Your task to perform on an android device: turn pop-ups off in chrome Image 0: 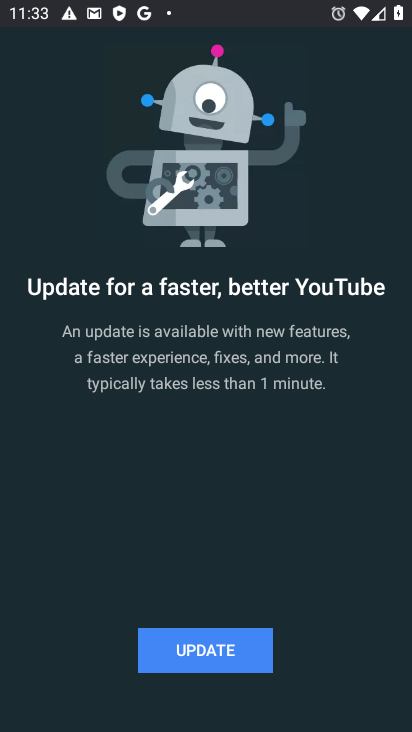
Step 0: press back button
Your task to perform on an android device: turn pop-ups off in chrome Image 1: 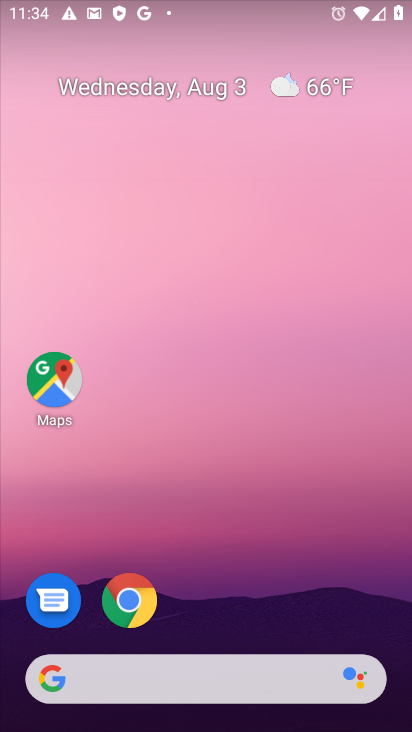
Step 1: click (140, 624)
Your task to perform on an android device: turn pop-ups off in chrome Image 2: 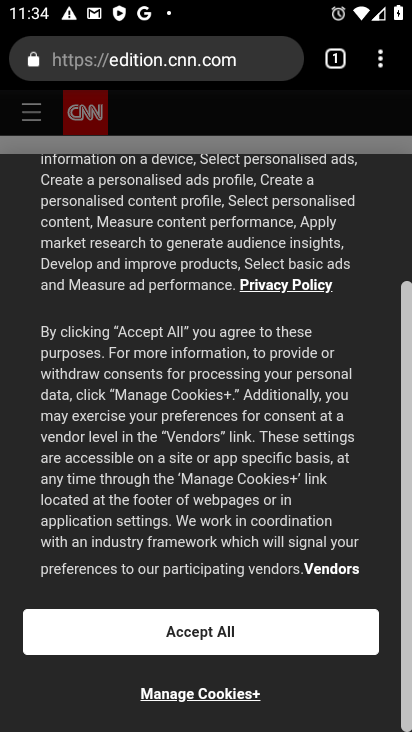
Step 2: click (384, 64)
Your task to perform on an android device: turn pop-ups off in chrome Image 3: 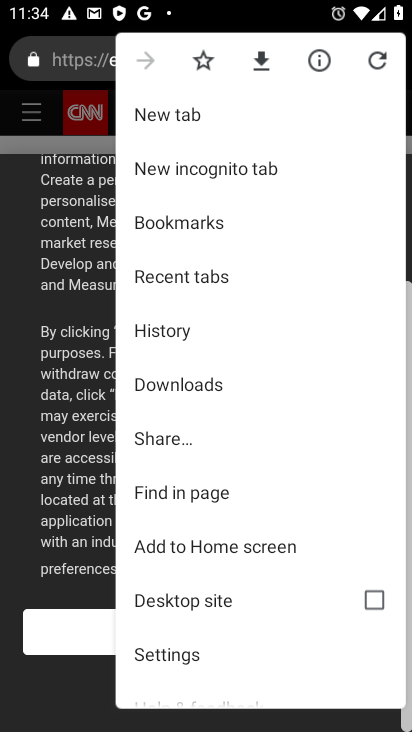
Step 3: click (172, 654)
Your task to perform on an android device: turn pop-ups off in chrome Image 4: 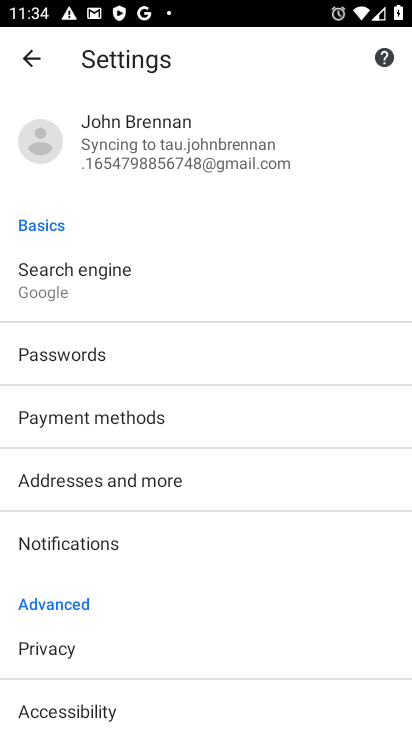
Step 4: drag from (172, 654) to (127, 244)
Your task to perform on an android device: turn pop-ups off in chrome Image 5: 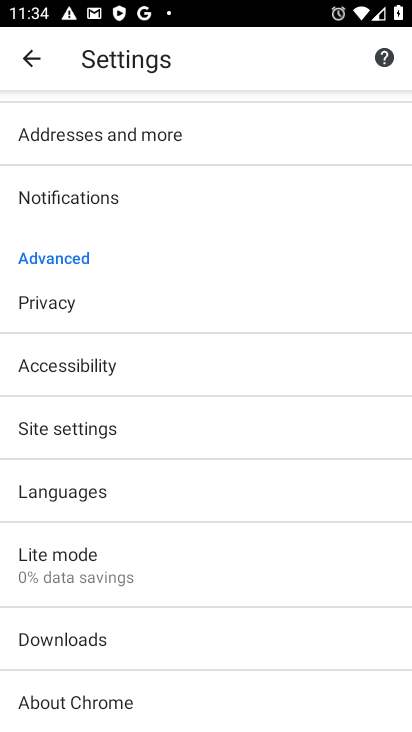
Step 5: click (55, 419)
Your task to perform on an android device: turn pop-ups off in chrome Image 6: 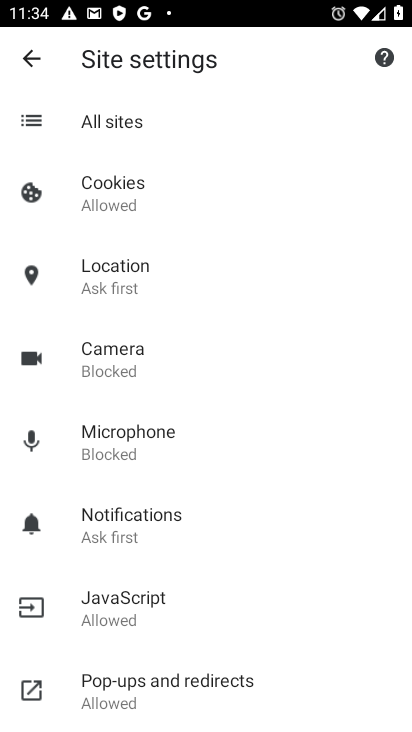
Step 6: click (105, 672)
Your task to perform on an android device: turn pop-ups off in chrome Image 7: 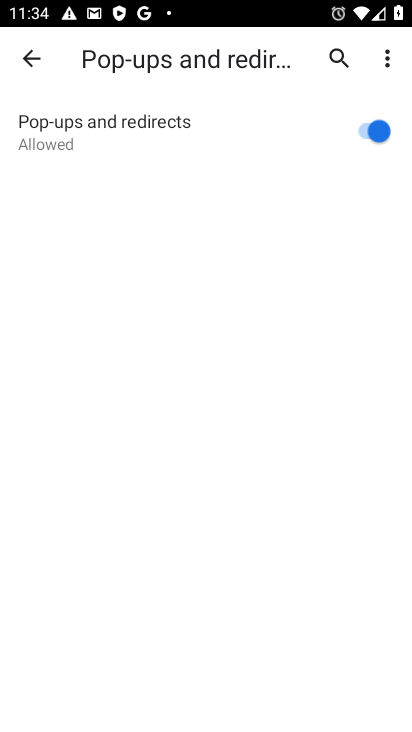
Step 7: click (372, 127)
Your task to perform on an android device: turn pop-ups off in chrome Image 8: 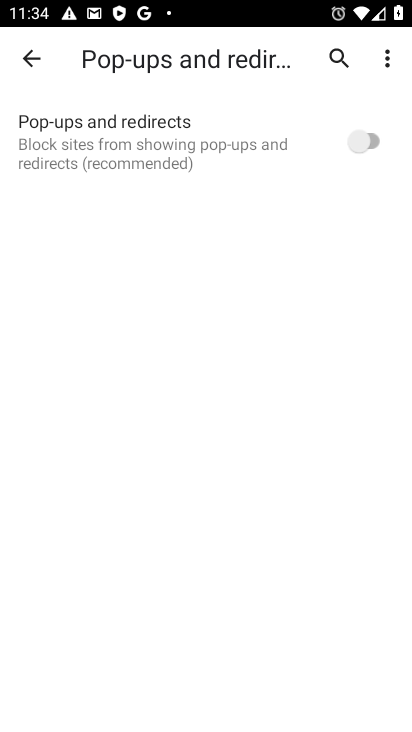
Step 8: task complete